Your task to perform on an android device: turn on javascript in the chrome app Image 0: 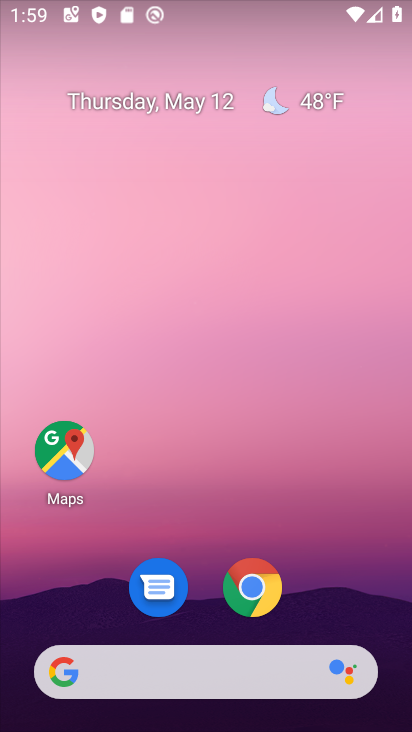
Step 0: drag from (181, 549) to (180, 195)
Your task to perform on an android device: turn on javascript in the chrome app Image 1: 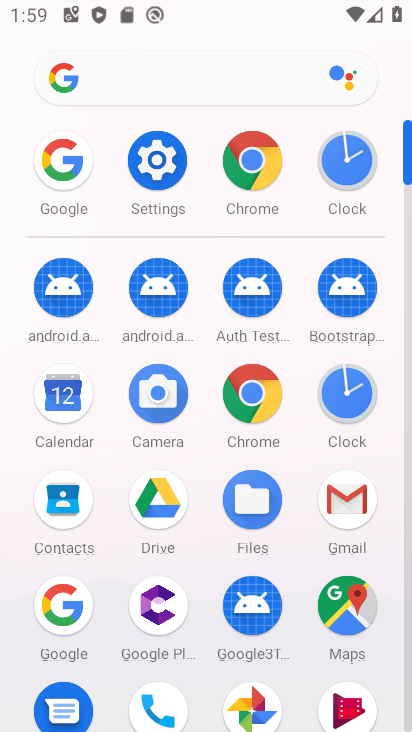
Step 1: click (239, 414)
Your task to perform on an android device: turn on javascript in the chrome app Image 2: 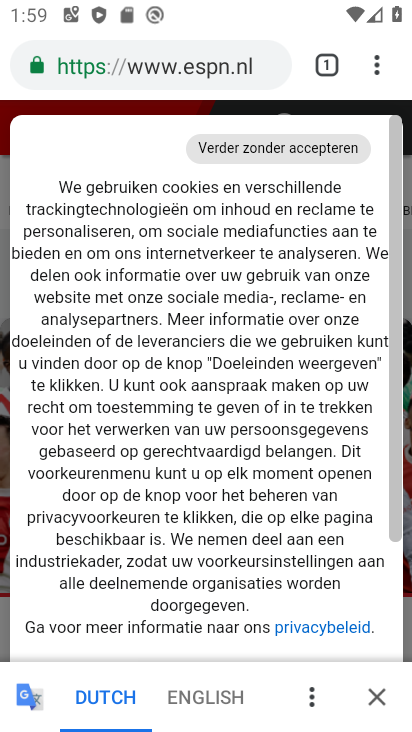
Step 2: click (383, 63)
Your task to perform on an android device: turn on javascript in the chrome app Image 3: 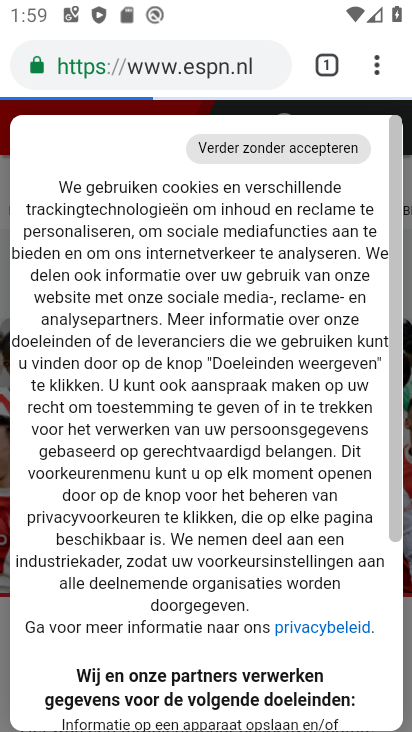
Step 3: click (386, 75)
Your task to perform on an android device: turn on javascript in the chrome app Image 4: 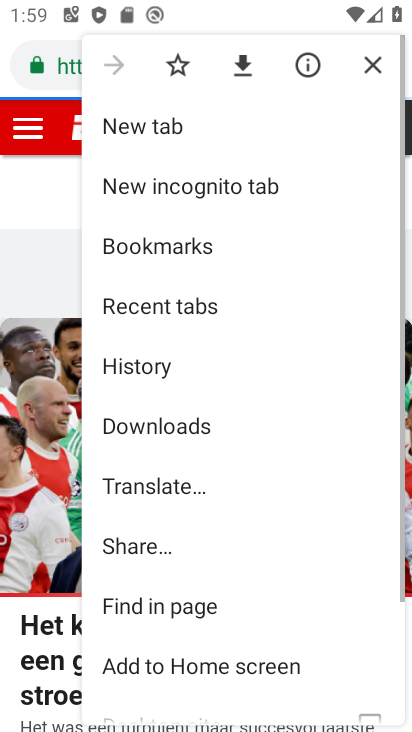
Step 4: drag from (254, 549) to (275, 260)
Your task to perform on an android device: turn on javascript in the chrome app Image 5: 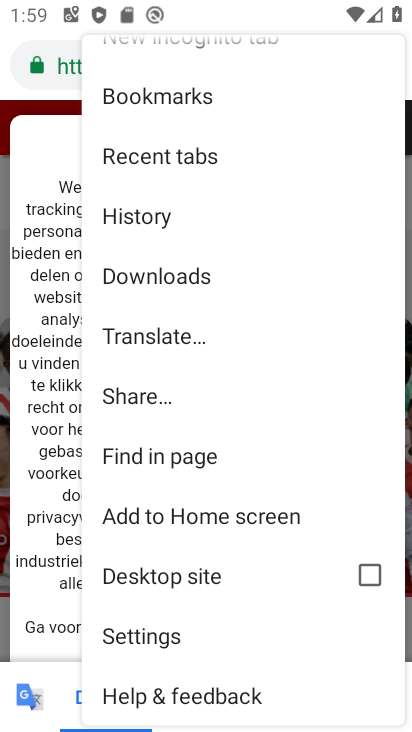
Step 5: click (202, 623)
Your task to perform on an android device: turn on javascript in the chrome app Image 6: 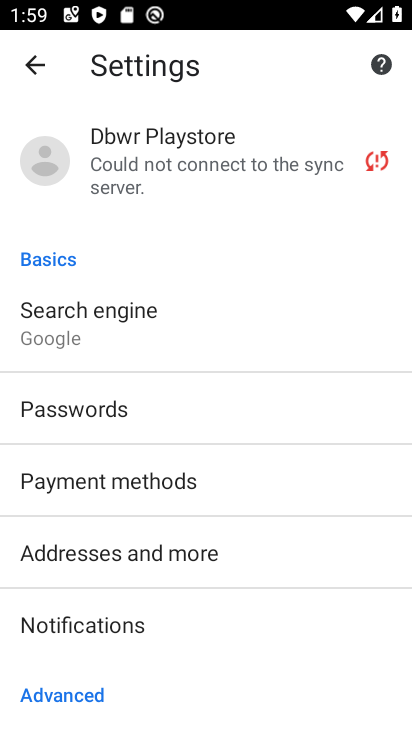
Step 6: drag from (182, 550) to (199, 326)
Your task to perform on an android device: turn on javascript in the chrome app Image 7: 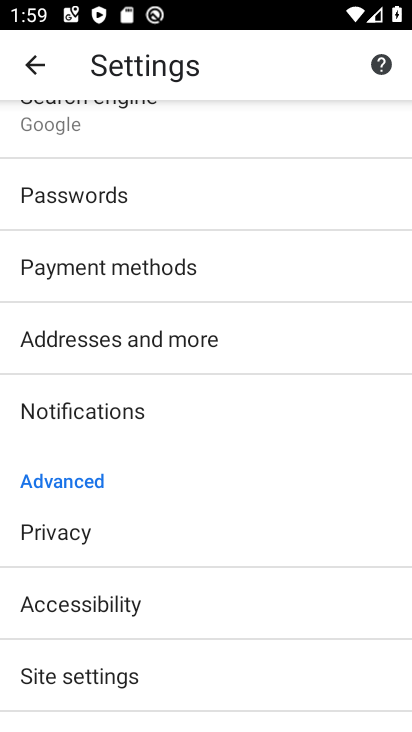
Step 7: drag from (180, 585) to (182, 460)
Your task to perform on an android device: turn on javascript in the chrome app Image 8: 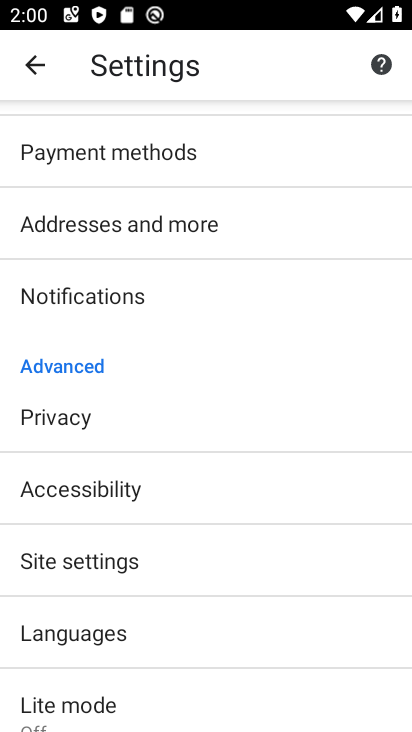
Step 8: click (151, 564)
Your task to perform on an android device: turn on javascript in the chrome app Image 9: 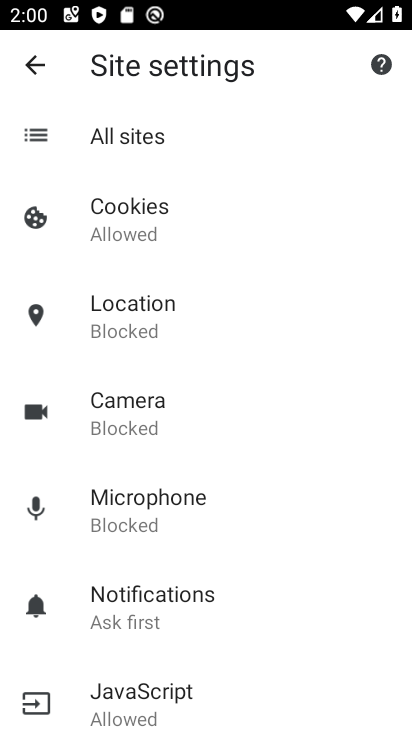
Step 9: click (157, 693)
Your task to perform on an android device: turn on javascript in the chrome app Image 10: 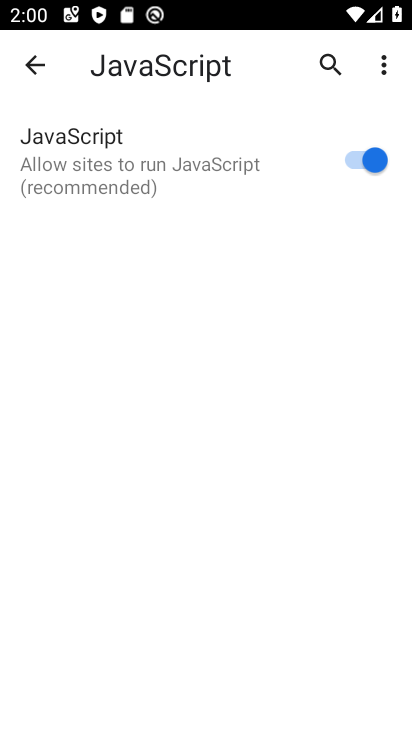
Step 10: task complete